Your task to perform on an android device: change the upload size in google photos Image 0: 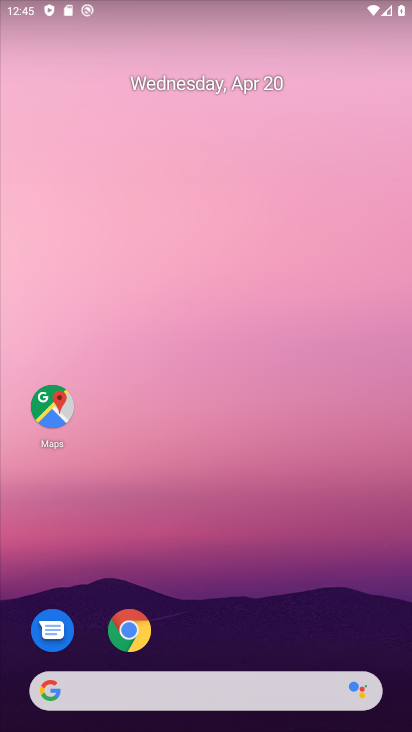
Step 0: drag from (261, 599) to (262, 279)
Your task to perform on an android device: change the upload size in google photos Image 1: 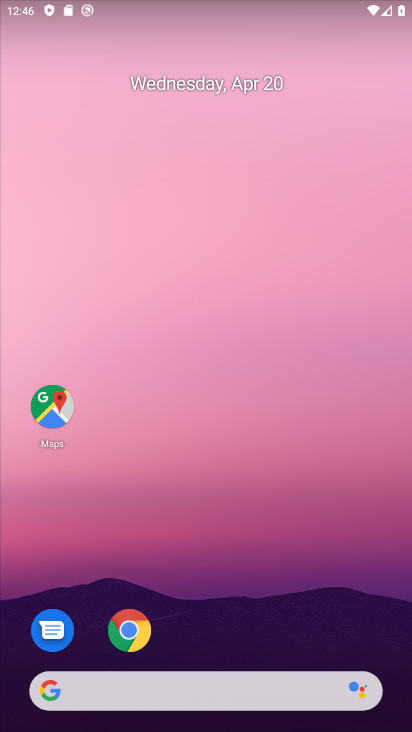
Step 1: drag from (208, 597) to (192, 218)
Your task to perform on an android device: change the upload size in google photos Image 2: 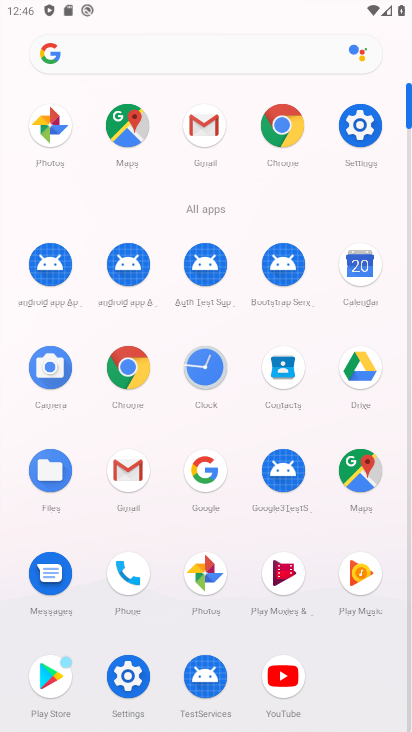
Step 2: click (202, 582)
Your task to perform on an android device: change the upload size in google photos Image 3: 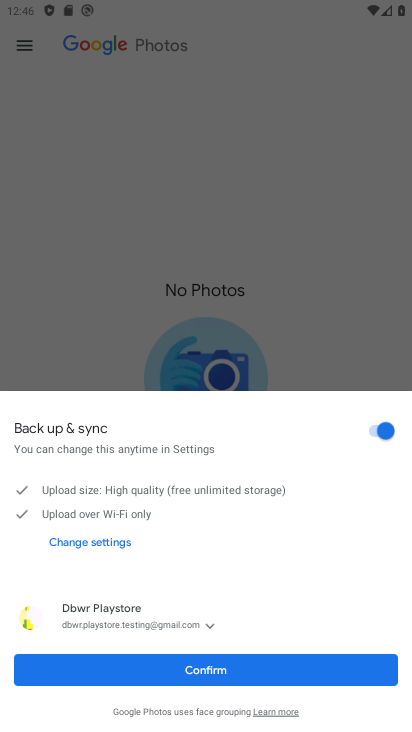
Step 3: click (209, 677)
Your task to perform on an android device: change the upload size in google photos Image 4: 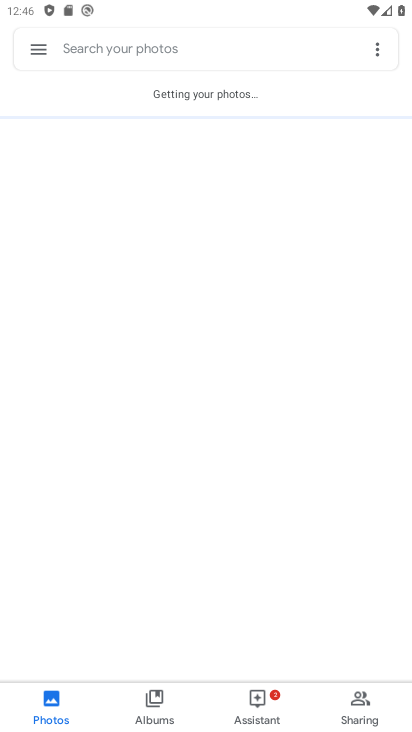
Step 4: click (35, 51)
Your task to perform on an android device: change the upload size in google photos Image 5: 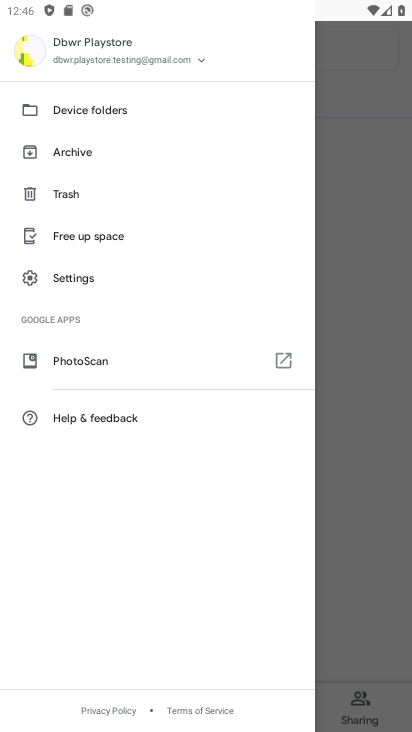
Step 5: click (81, 280)
Your task to perform on an android device: change the upload size in google photos Image 6: 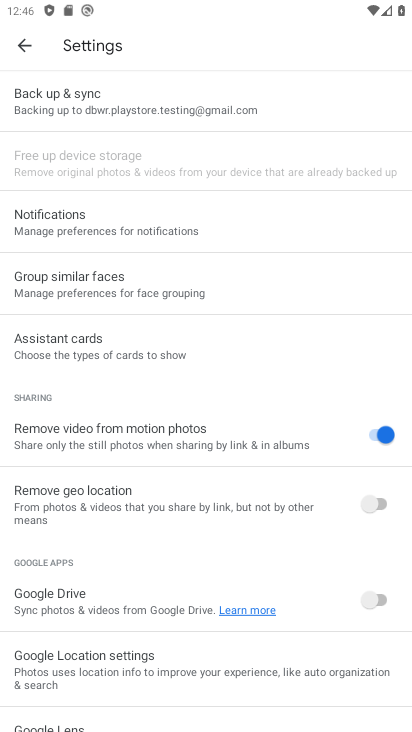
Step 6: click (103, 114)
Your task to perform on an android device: change the upload size in google photos Image 7: 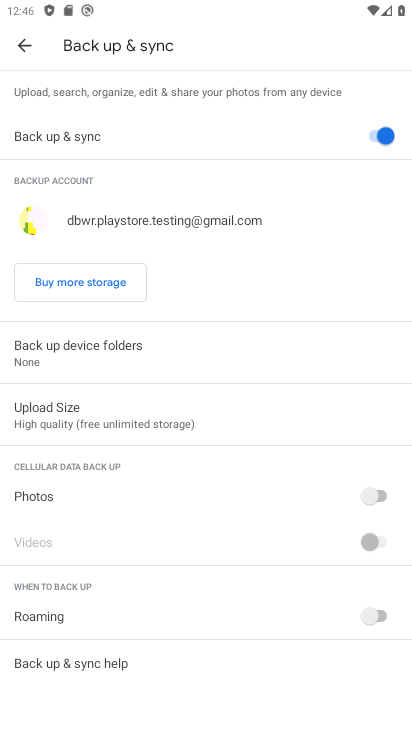
Step 7: click (58, 412)
Your task to perform on an android device: change the upload size in google photos Image 8: 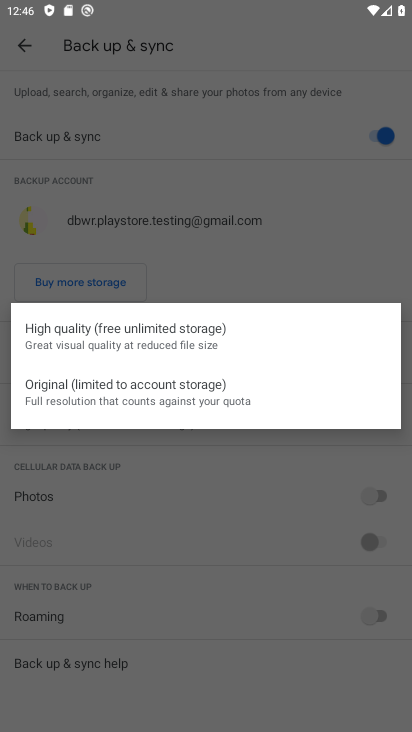
Step 8: click (91, 394)
Your task to perform on an android device: change the upload size in google photos Image 9: 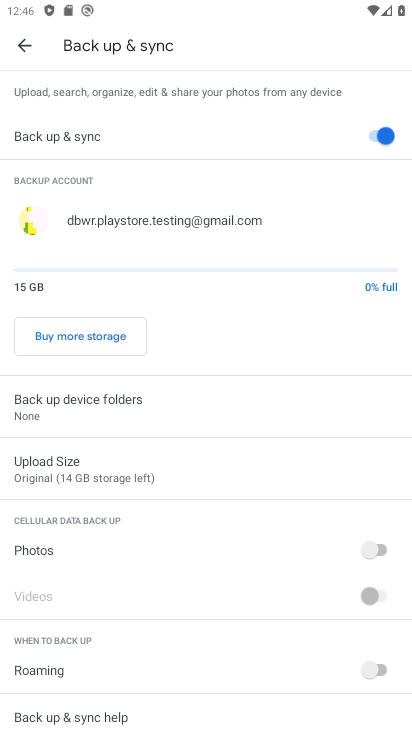
Step 9: task complete